Your task to perform on an android device: Go to wifi settings Image 0: 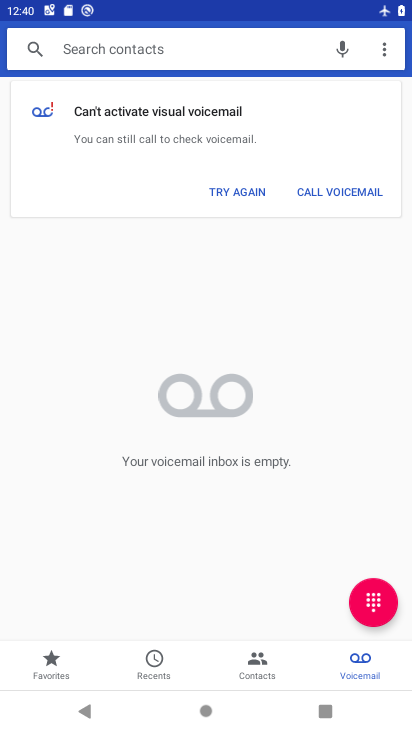
Step 0: press home button
Your task to perform on an android device: Go to wifi settings Image 1: 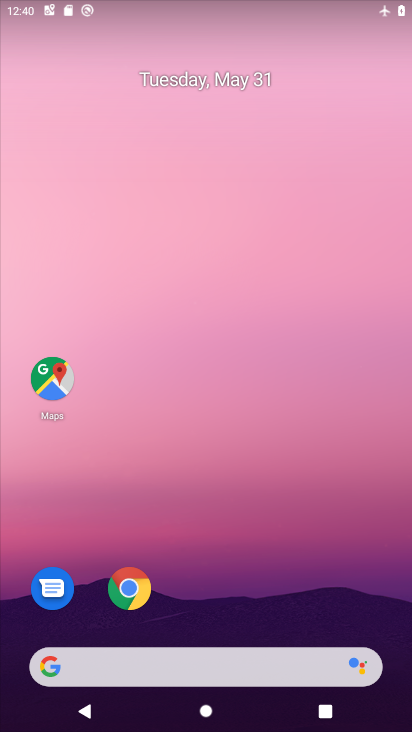
Step 1: drag from (265, 610) to (252, 46)
Your task to perform on an android device: Go to wifi settings Image 2: 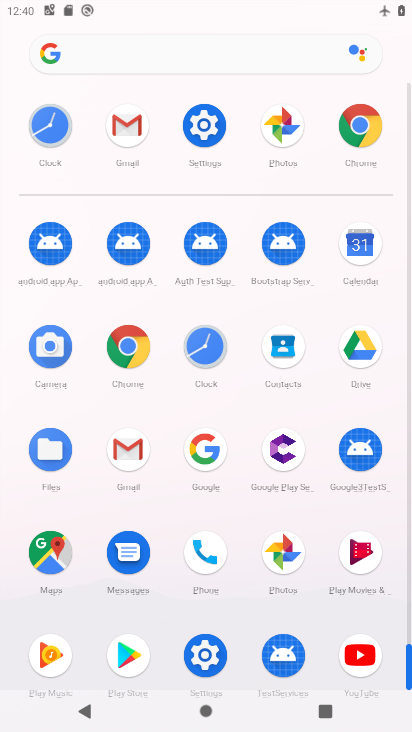
Step 2: click (207, 113)
Your task to perform on an android device: Go to wifi settings Image 3: 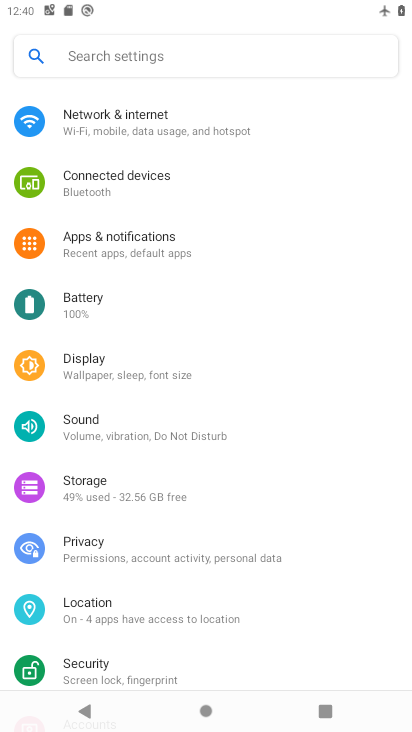
Step 3: click (237, 131)
Your task to perform on an android device: Go to wifi settings Image 4: 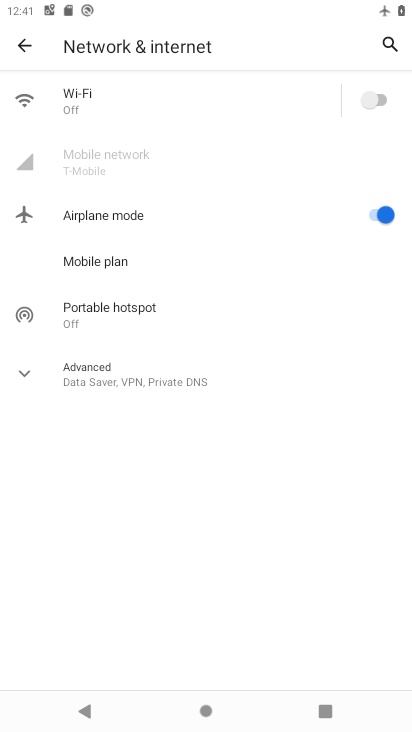
Step 4: click (141, 74)
Your task to perform on an android device: Go to wifi settings Image 5: 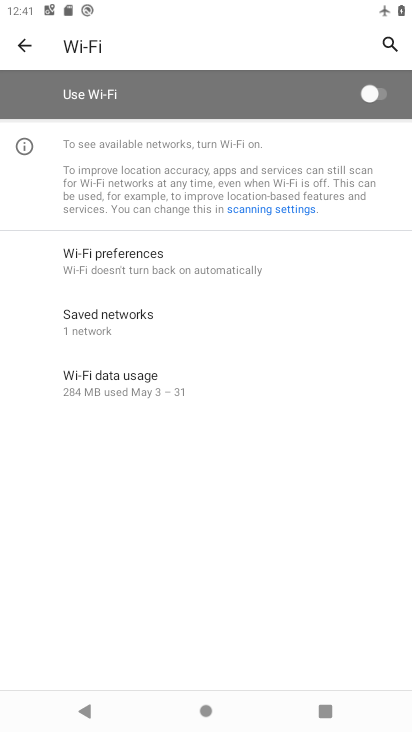
Step 5: task complete